Your task to perform on an android device: change the clock display to digital Image 0: 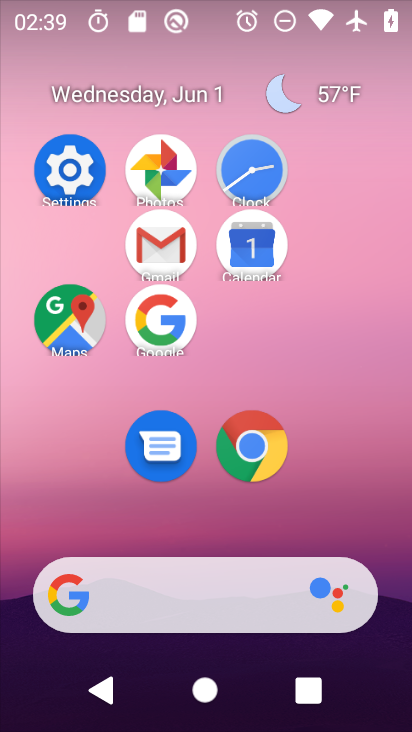
Step 0: click (256, 180)
Your task to perform on an android device: change the clock display to digital Image 1: 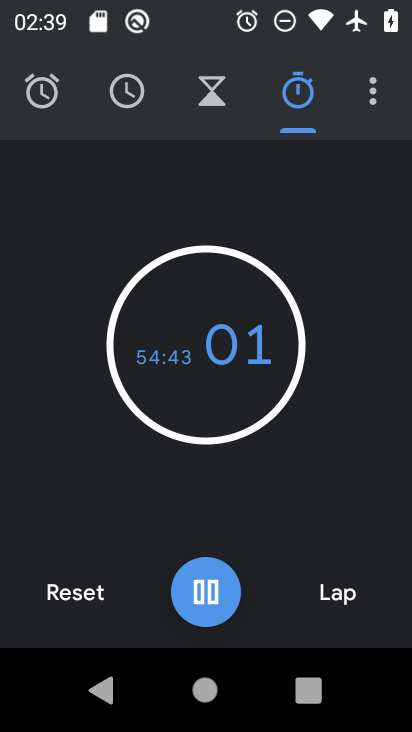
Step 1: click (369, 115)
Your task to perform on an android device: change the clock display to digital Image 2: 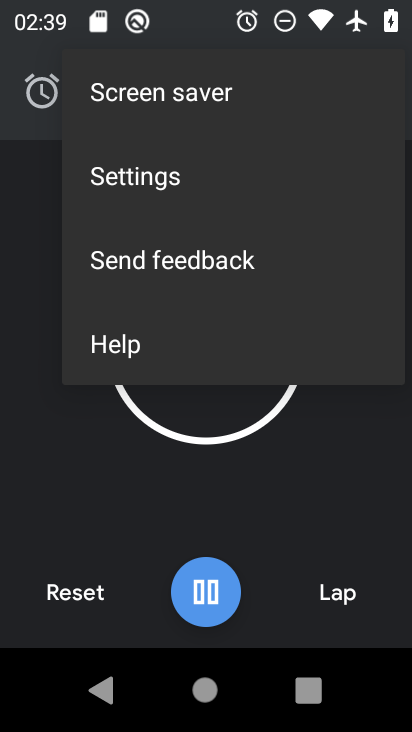
Step 2: click (162, 191)
Your task to perform on an android device: change the clock display to digital Image 3: 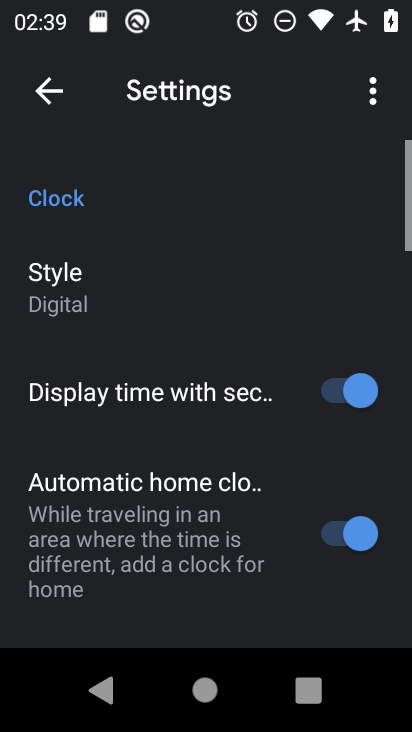
Step 3: click (69, 326)
Your task to perform on an android device: change the clock display to digital Image 4: 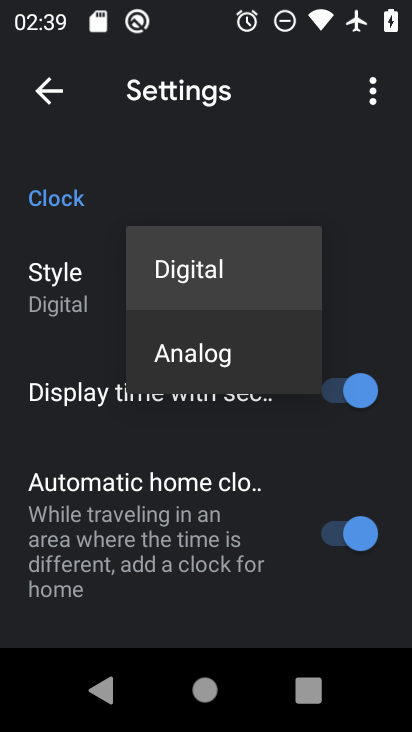
Step 4: task complete